Your task to perform on an android device: What's the weather? Image 0: 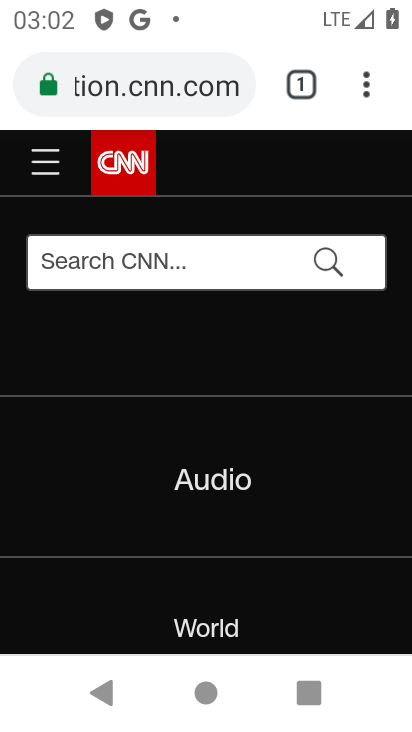
Step 0: press home button
Your task to perform on an android device: What's the weather? Image 1: 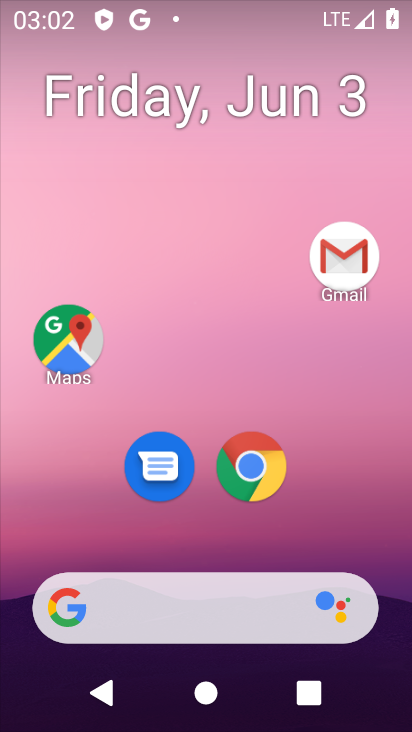
Step 1: click (150, 621)
Your task to perform on an android device: What's the weather? Image 2: 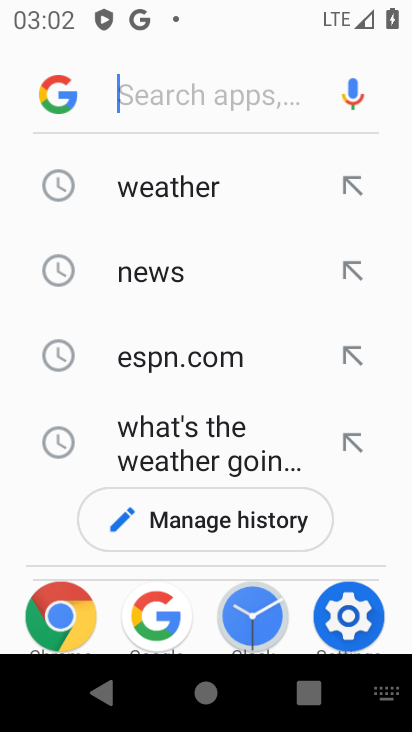
Step 2: click (205, 194)
Your task to perform on an android device: What's the weather? Image 3: 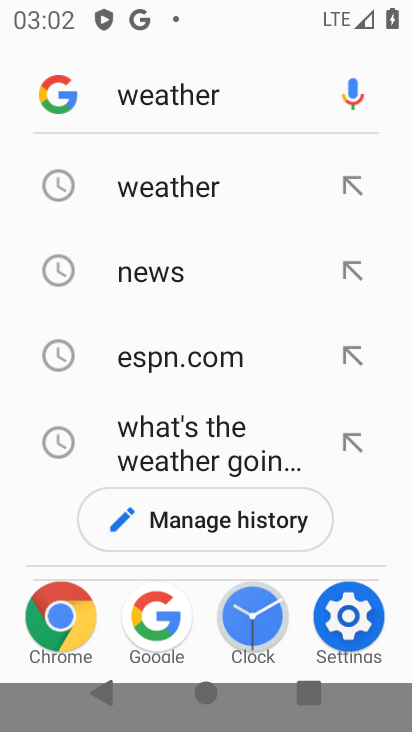
Step 3: click (205, 194)
Your task to perform on an android device: What's the weather? Image 4: 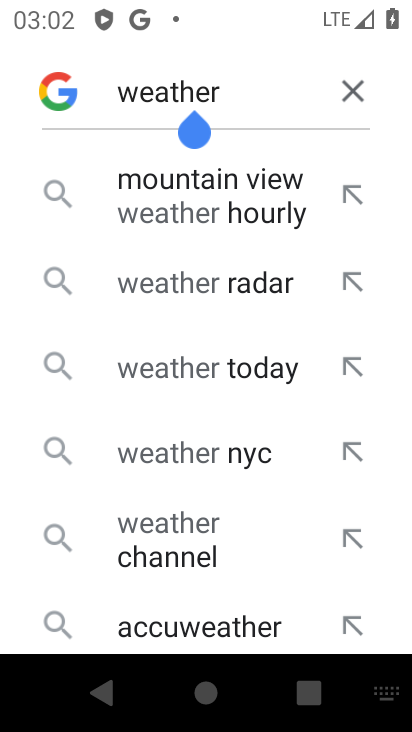
Step 4: click (272, 107)
Your task to perform on an android device: What's the weather? Image 5: 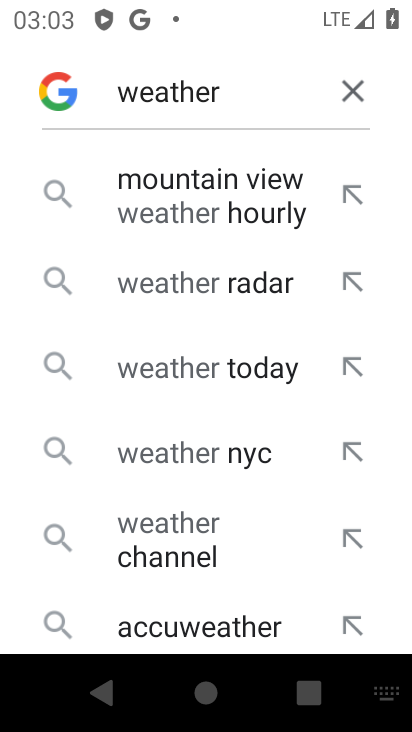
Step 5: click (344, 88)
Your task to perform on an android device: What's the weather? Image 6: 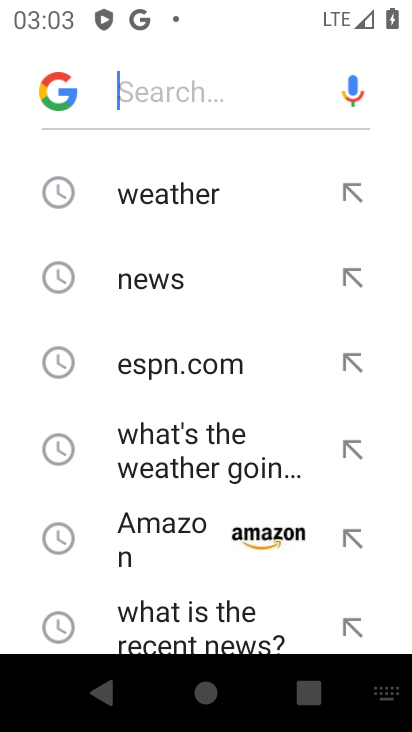
Step 6: click (145, 210)
Your task to perform on an android device: What's the weather? Image 7: 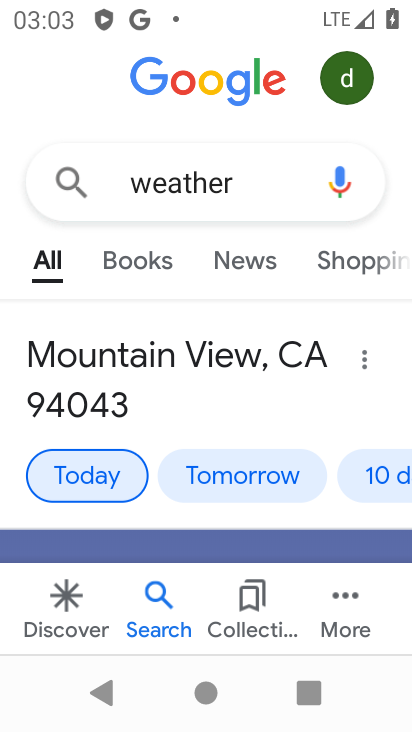
Step 7: task complete